Your task to perform on an android device: visit the assistant section in the google photos Image 0: 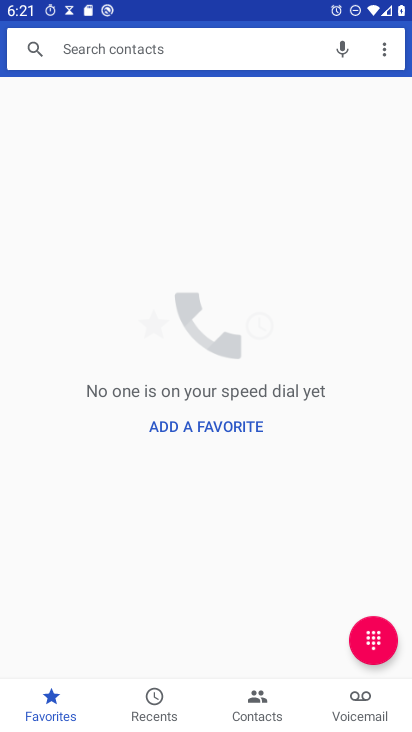
Step 0: press home button
Your task to perform on an android device: visit the assistant section in the google photos Image 1: 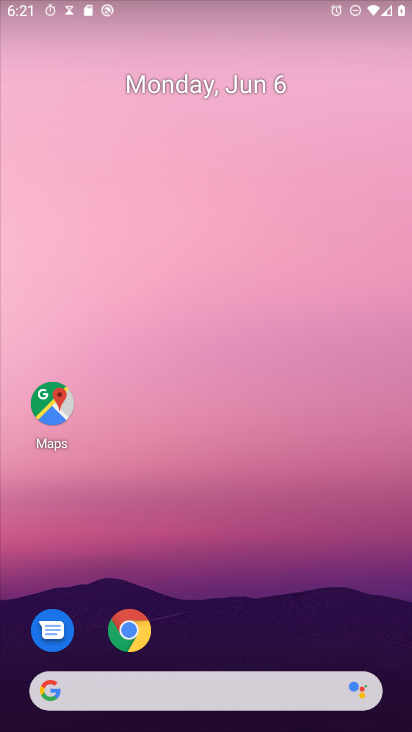
Step 1: drag from (284, 652) to (170, 23)
Your task to perform on an android device: visit the assistant section in the google photos Image 2: 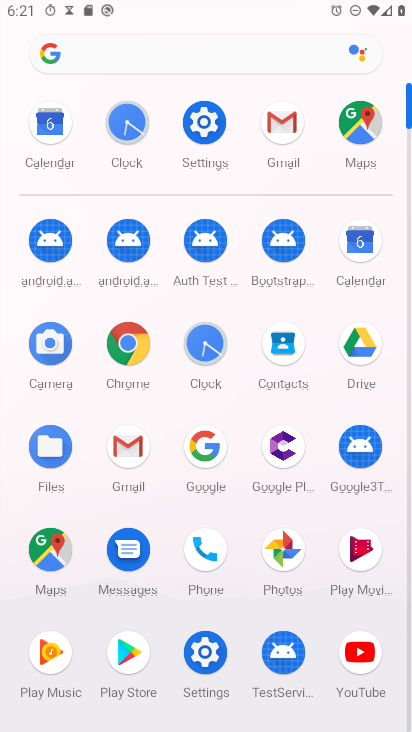
Step 2: click (273, 535)
Your task to perform on an android device: visit the assistant section in the google photos Image 3: 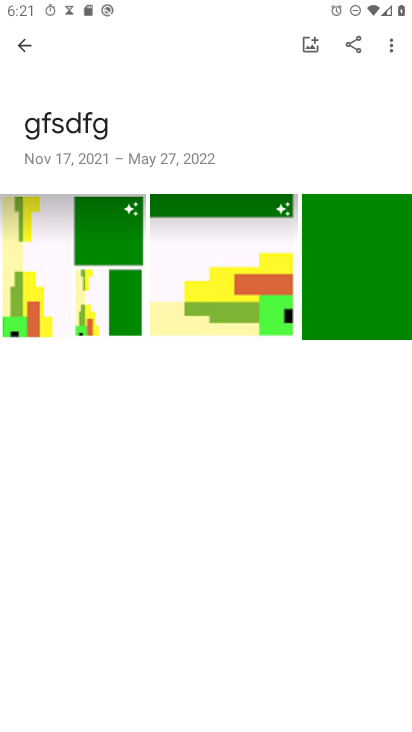
Step 3: click (20, 35)
Your task to perform on an android device: visit the assistant section in the google photos Image 4: 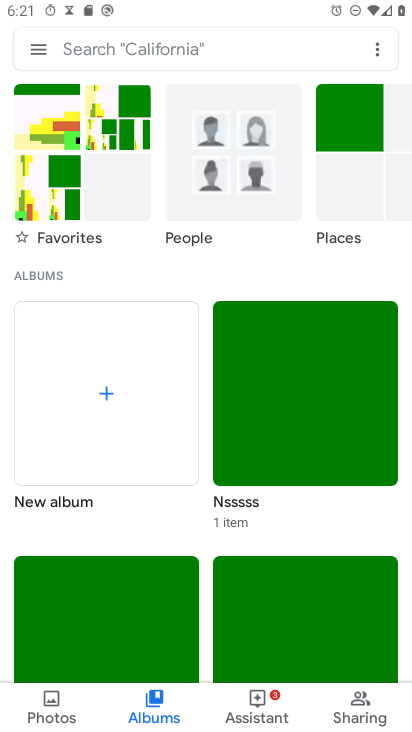
Step 4: click (263, 717)
Your task to perform on an android device: visit the assistant section in the google photos Image 5: 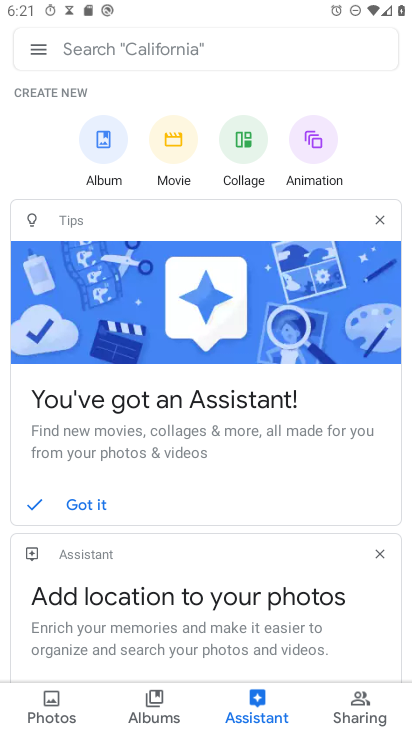
Step 5: task complete